Your task to perform on an android device: toggle notifications settings in the gmail app Image 0: 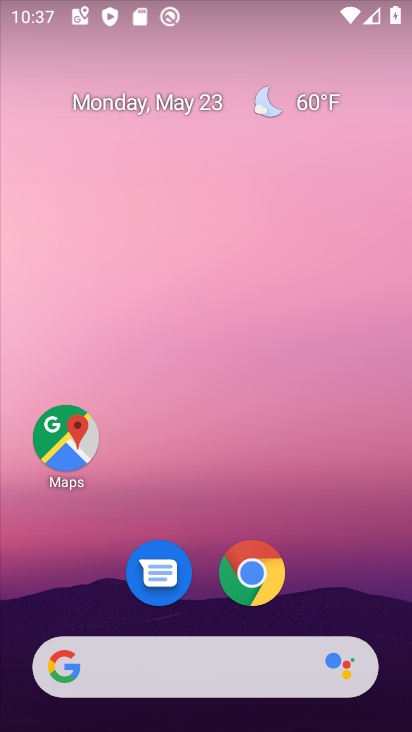
Step 0: drag from (342, 555) to (265, 33)
Your task to perform on an android device: toggle notifications settings in the gmail app Image 1: 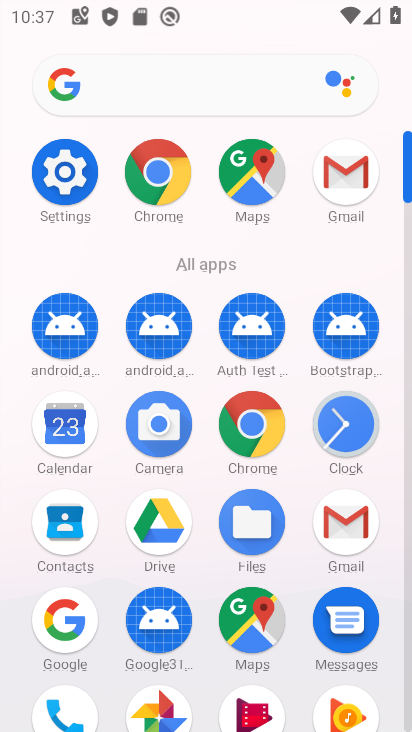
Step 1: drag from (12, 556) to (12, 272)
Your task to perform on an android device: toggle notifications settings in the gmail app Image 2: 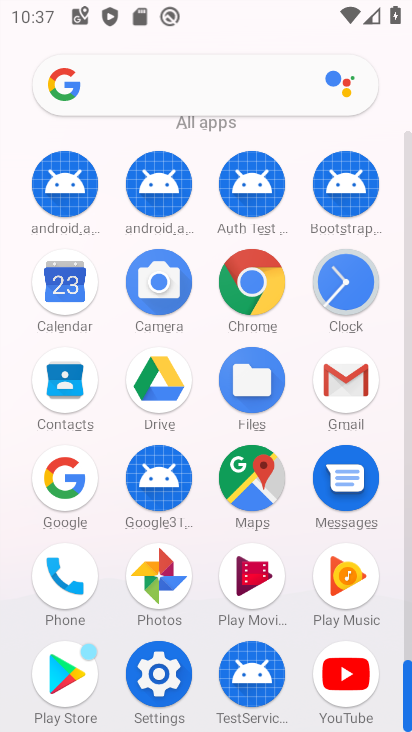
Step 2: click (347, 377)
Your task to perform on an android device: toggle notifications settings in the gmail app Image 3: 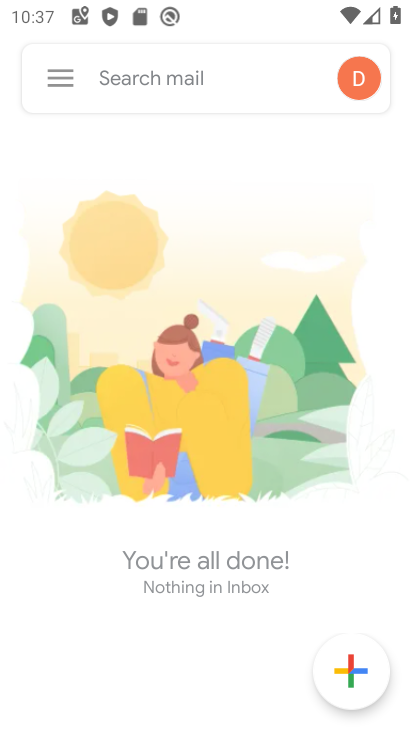
Step 3: click (67, 69)
Your task to perform on an android device: toggle notifications settings in the gmail app Image 4: 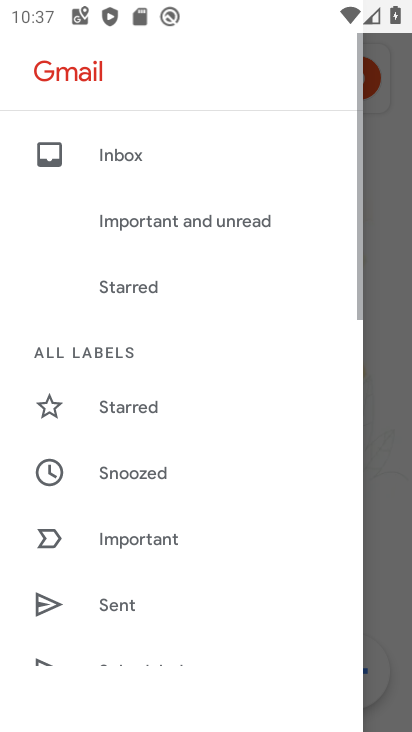
Step 4: drag from (123, 619) to (191, 136)
Your task to perform on an android device: toggle notifications settings in the gmail app Image 5: 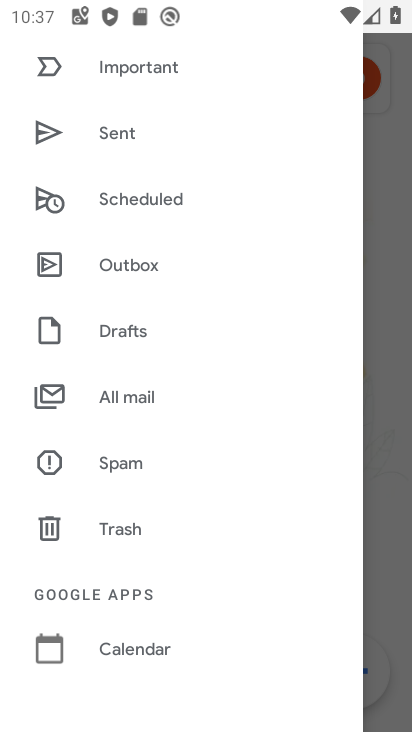
Step 5: drag from (185, 587) to (225, 139)
Your task to perform on an android device: toggle notifications settings in the gmail app Image 6: 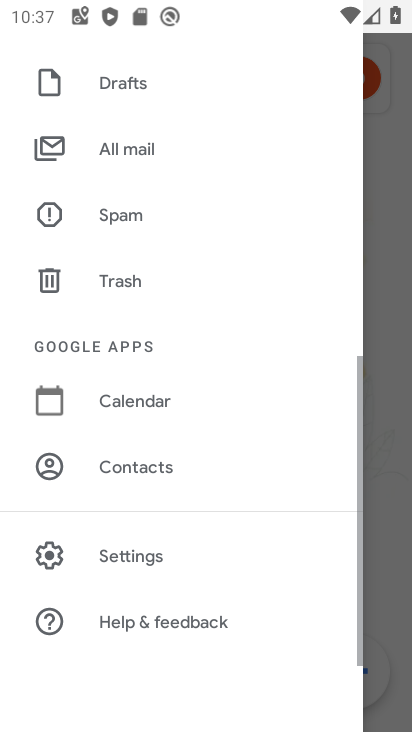
Step 6: click (107, 557)
Your task to perform on an android device: toggle notifications settings in the gmail app Image 7: 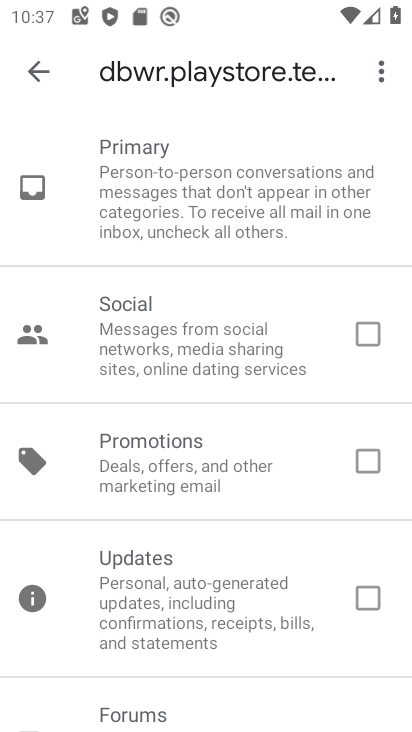
Step 7: drag from (220, 605) to (220, 178)
Your task to perform on an android device: toggle notifications settings in the gmail app Image 8: 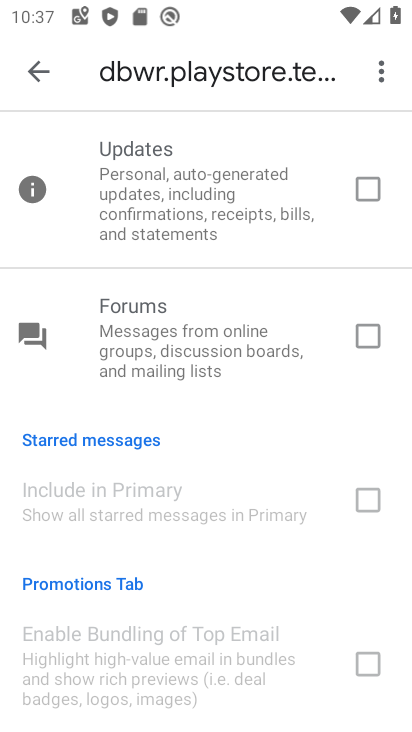
Step 8: drag from (149, 591) to (224, 96)
Your task to perform on an android device: toggle notifications settings in the gmail app Image 9: 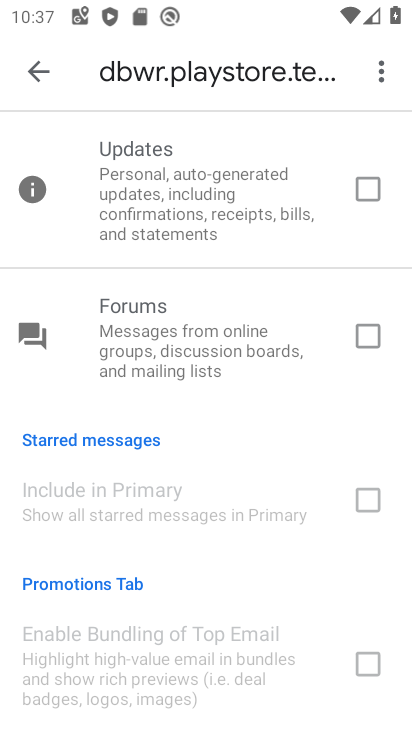
Step 9: click (40, 80)
Your task to perform on an android device: toggle notifications settings in the gmail app Image 10: 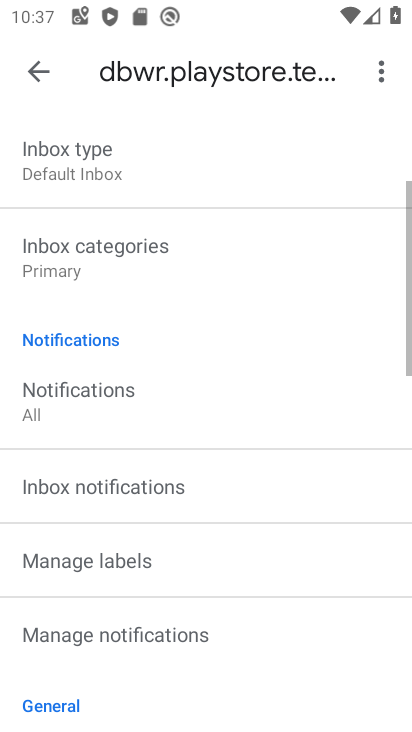
Step 10: drag from (244, 607) to (256, 252)
Your task to perform on an android device: toggle notifications settings in the gmail app Image 11: 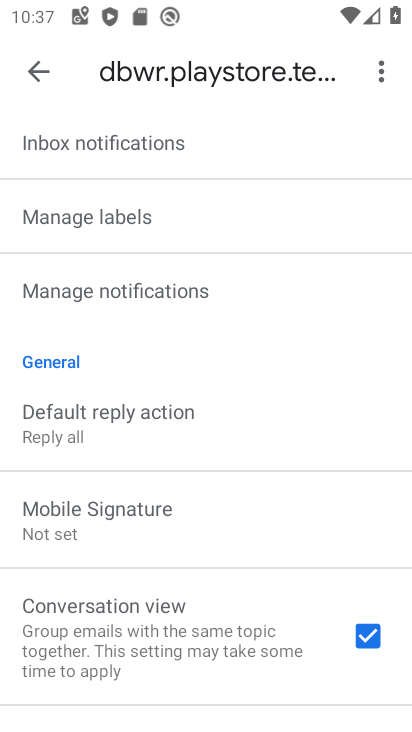
Step 11: click (174, 277)
Your task to perform on an android device: toggle notifications settings in the gmail app Image 12: 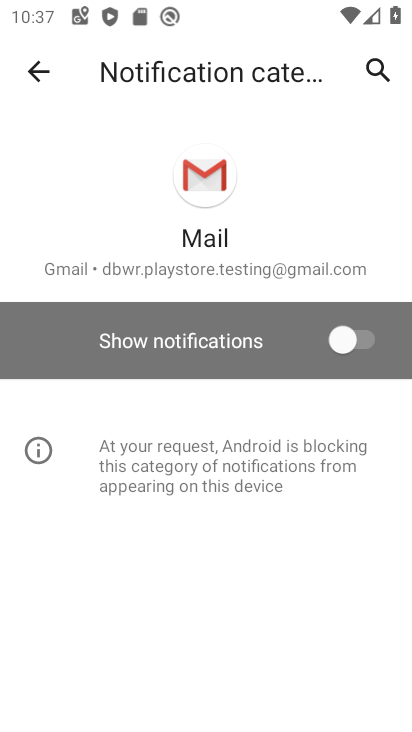
Step 12: click (341, 339)
Your task to perform on an android device: toggle notifications settings in the gmail app Image 13: 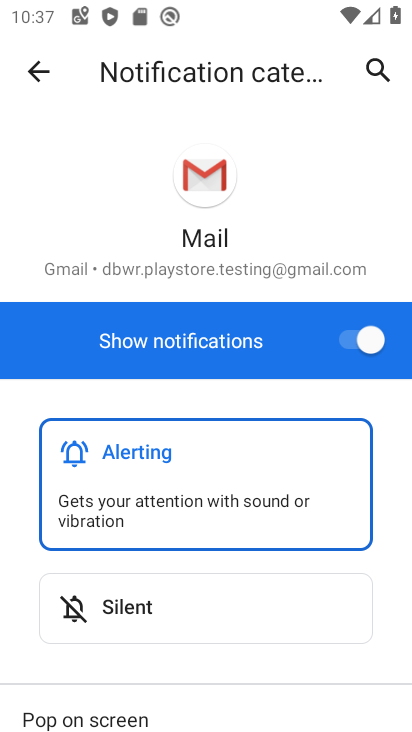
Step 13: task complete